Your task to perform on an android device: turn on wifi Image 0: 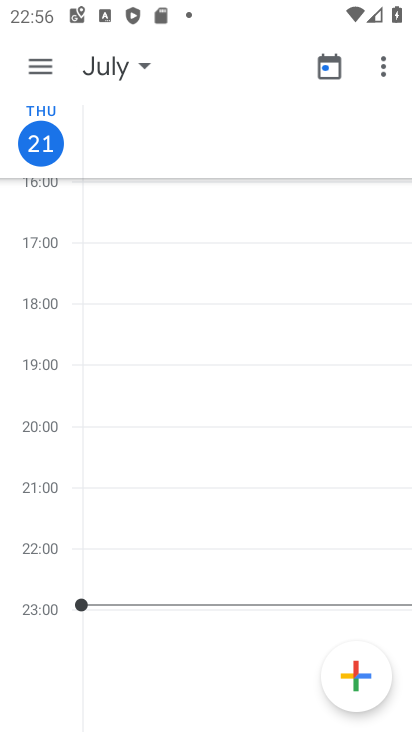
Step 0: press home button
Your task to perform on an android device: turn on wifi Image 1: 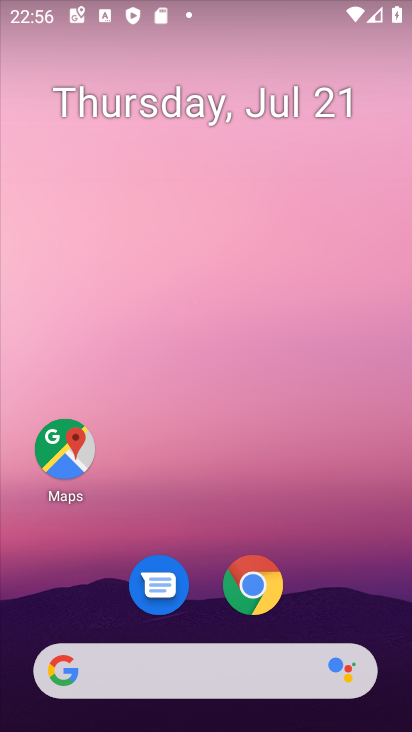
Step 1: drag from (325, 569) to (370, 35)
Your task to perform on an android device: turn on wifi Image 2: 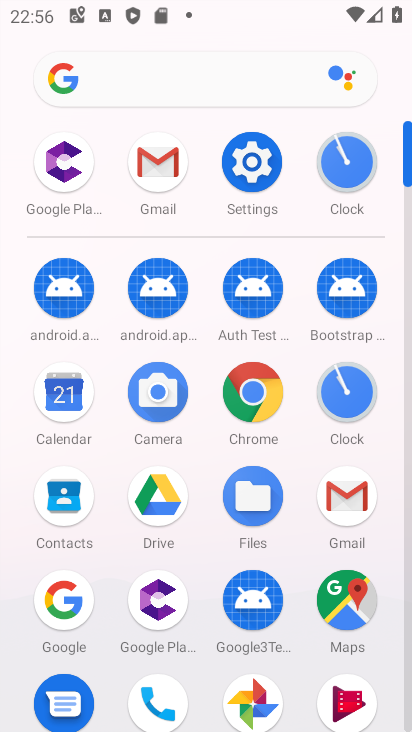
Step 2: click (256, 163)
Your task to perform on an android device: turn on wifi Image 3: 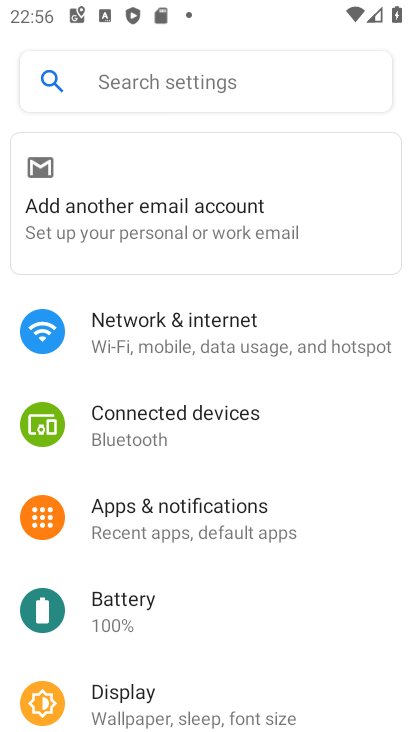
Step 3: click (189, 315)
Your task to perform on an android device: turn on wifi Image 4: 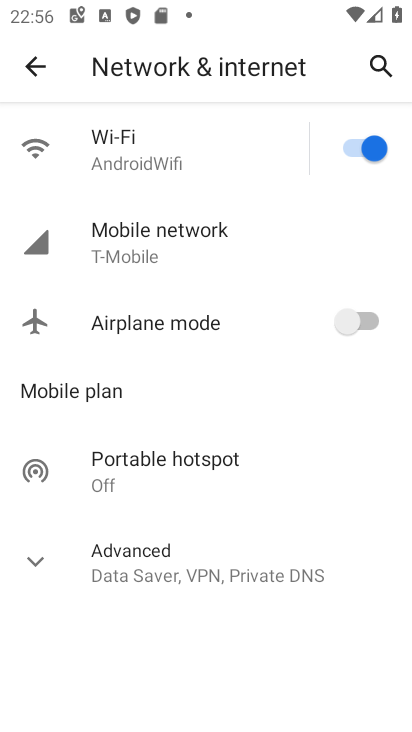
Step 4: task complete